Your task to perform on an android device: uninstall "Pinterest" Image 0: 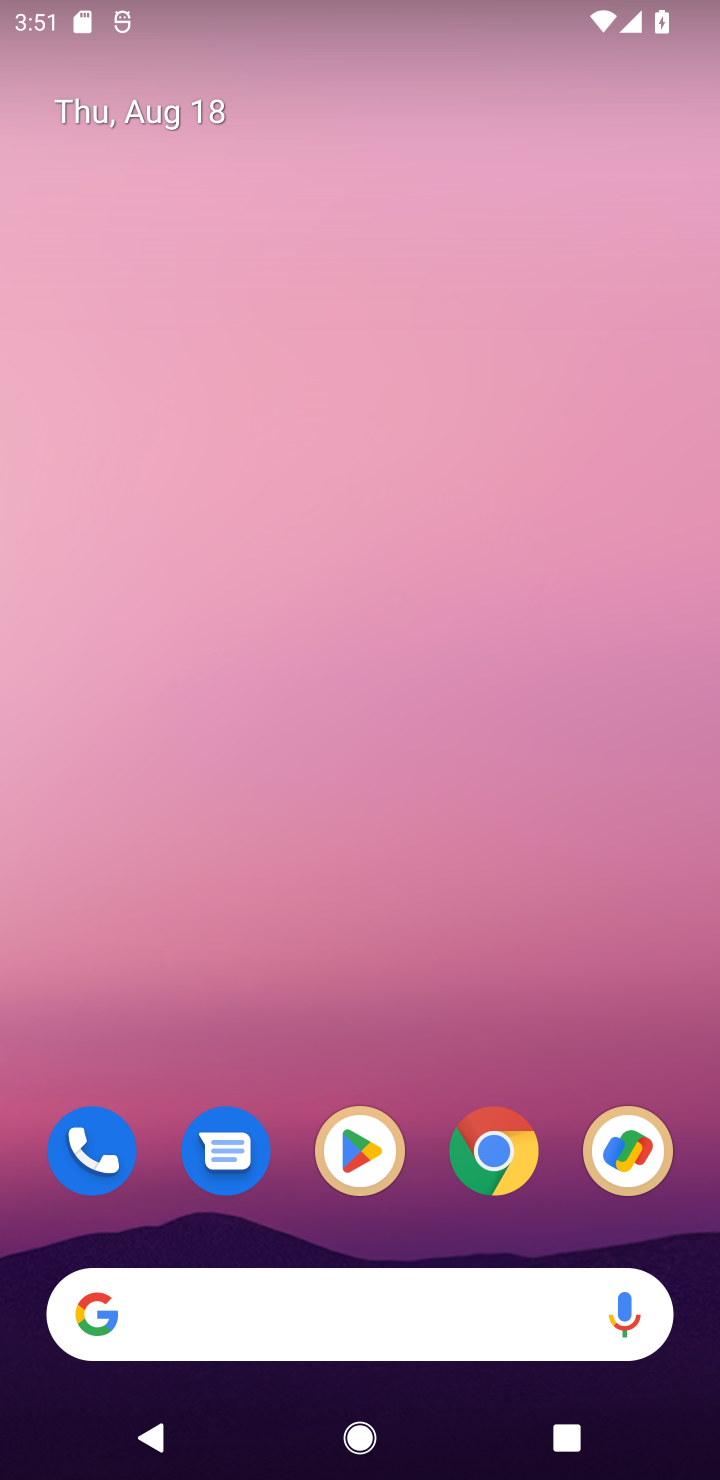
Step 0: click (343, 1155)
Your task to perform on an android device: uninstall "Pinterest" Image 1: 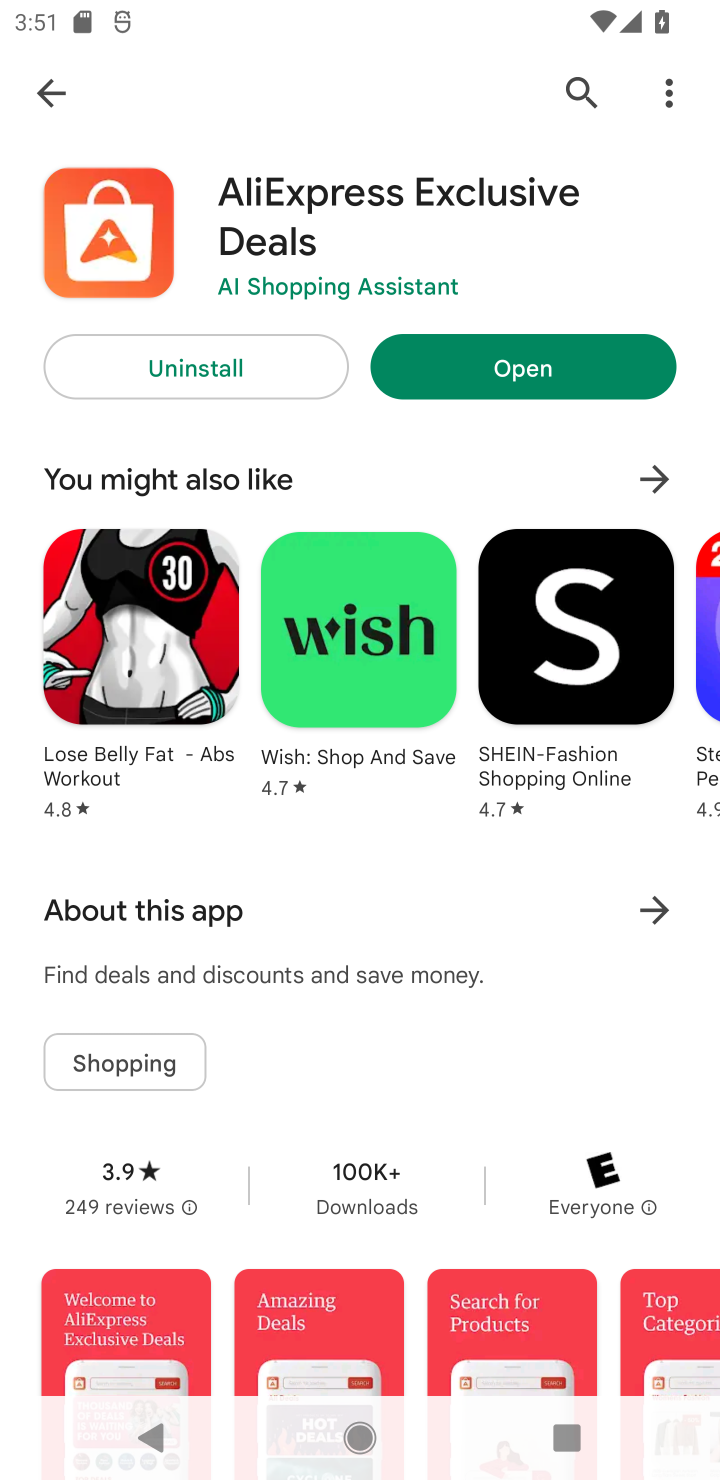
Step 1: click (578, 111)
Your task to perform on an android device: uninstall "Pinterest" Image 2: 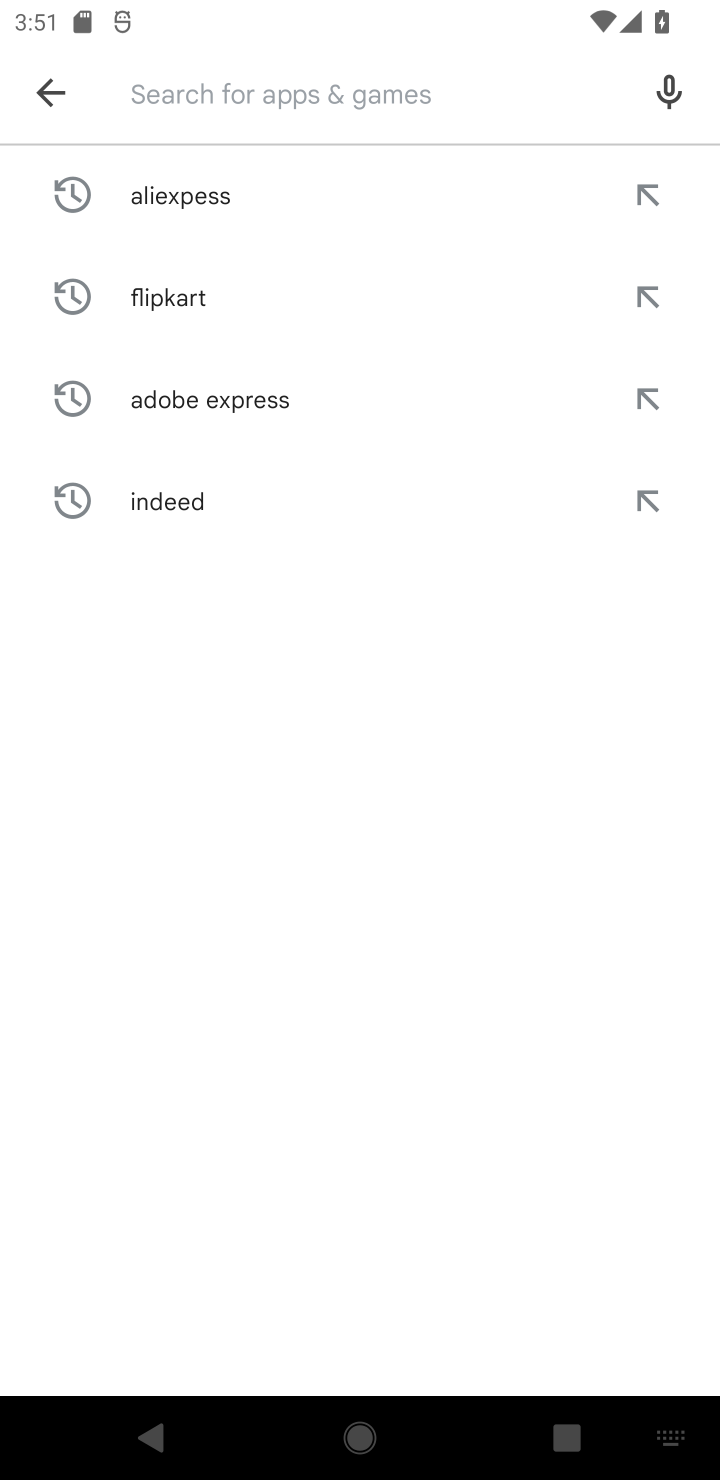
Step 2: type "pinterest"
Your task to perform on an android device: uninstall "Pinterest" Image 3: 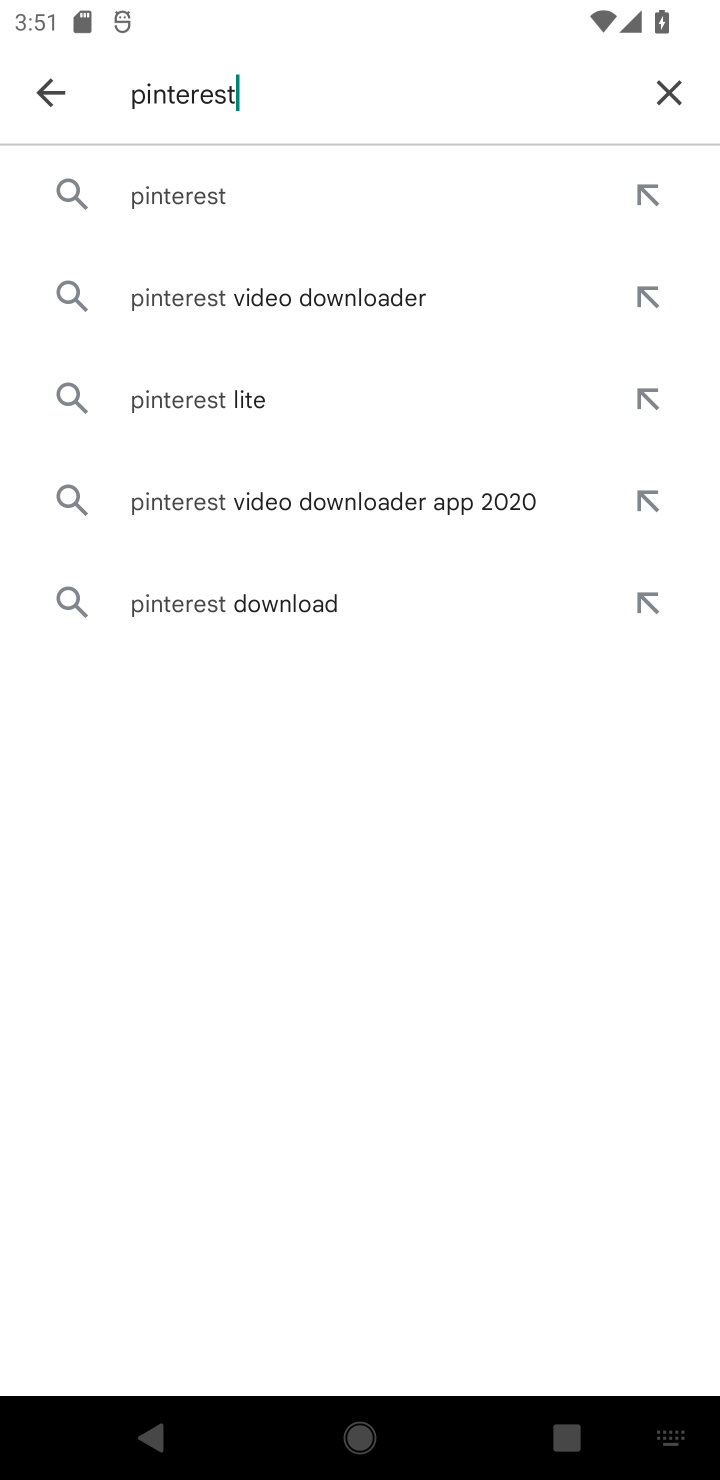
Step 3: click (206, 187)
Your task to perform on an android device: uninstall "Pinterest" Image 4: 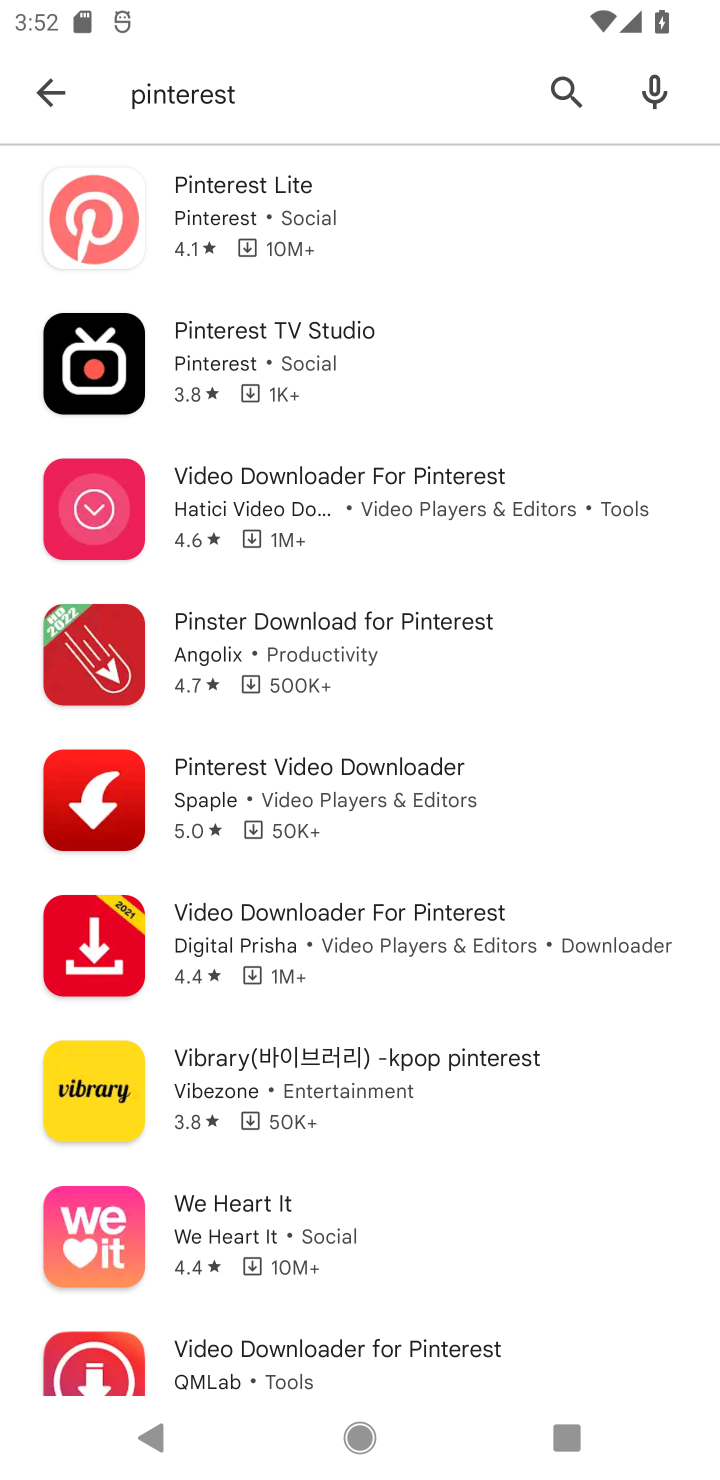
Step 4: click (184, 214)
Your task to perform on an android device: uninstall "Pinterest" Image 5: 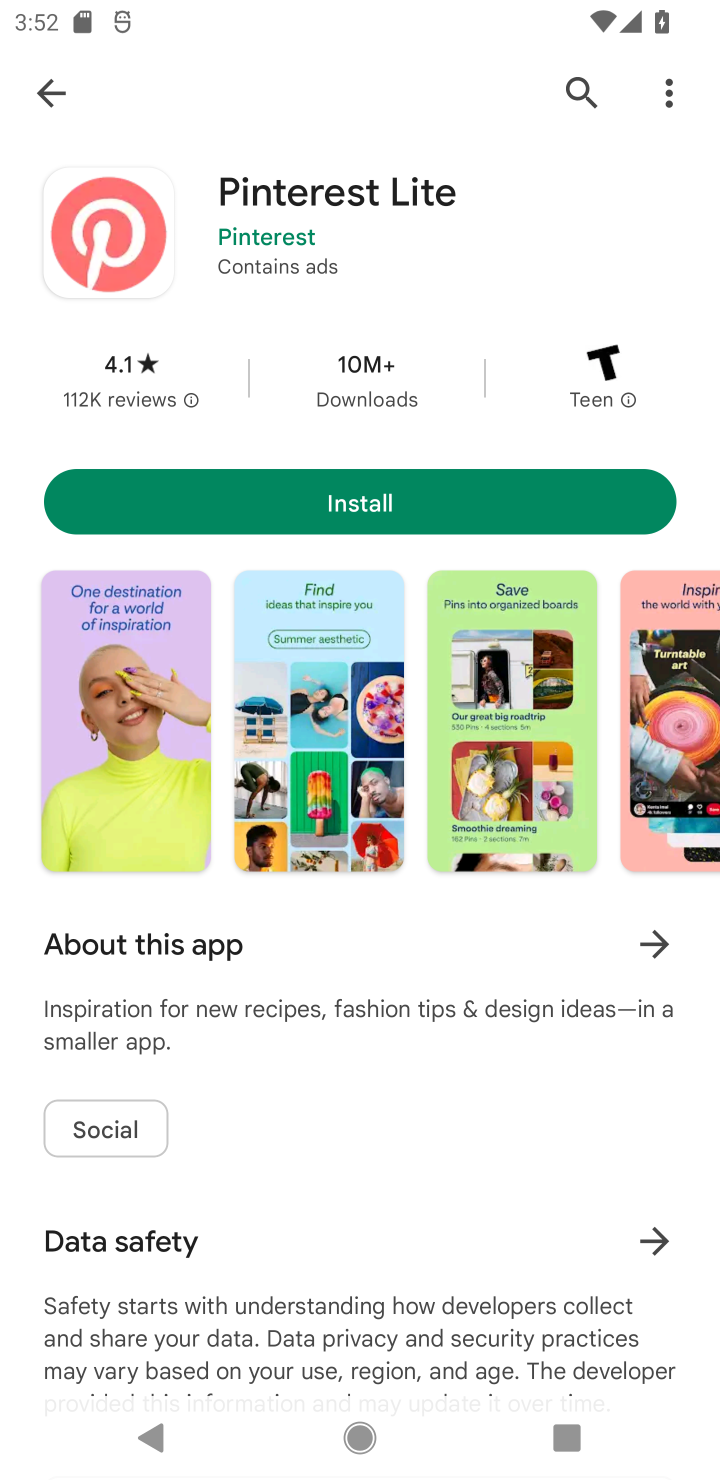
Step 5: click (440, 490)
Your task to perform on an android device: uninstall "Pinterest" Image 6: 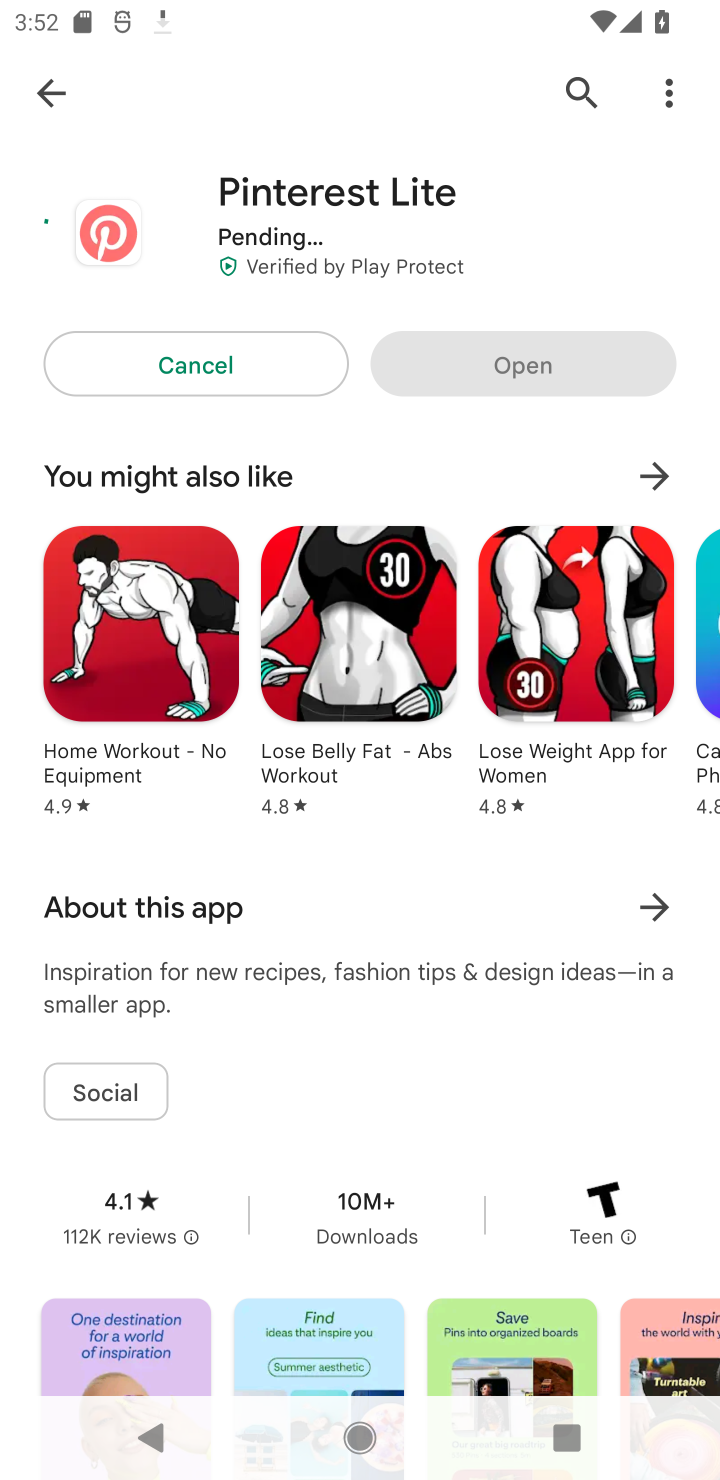
Step 6: task complete